Your task to perform on an android device: Search for sushi restaurants on Maps Image 0: 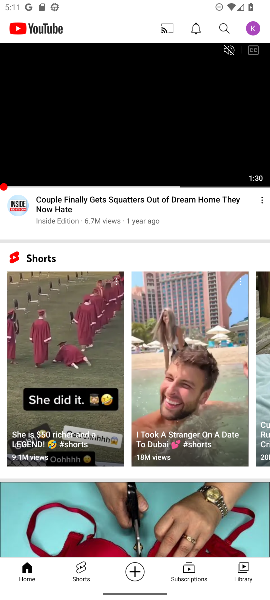
Step 0: press home button
Your task to perform on an android device: Search for sushi restaurants on Maps Image 1: 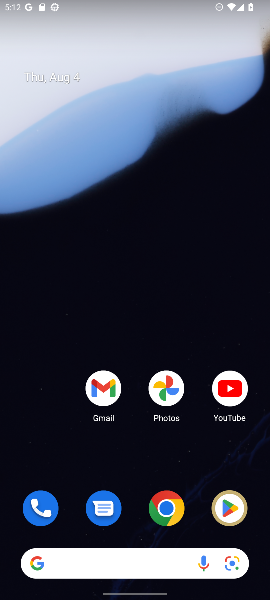
Step 1: drag from (110, 521) to (130, 137)
Your task to perform on an android device: Search for sushi restaurants on Maps Image 2: 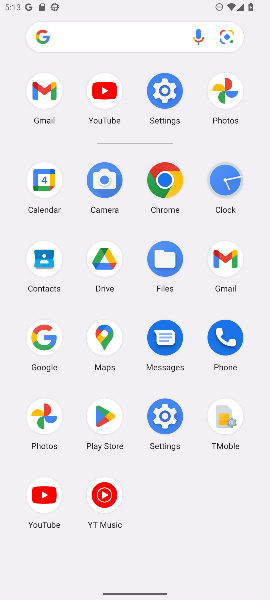
Step 2: drag from (196, 491) to (187, 254)
Your task to perform on an android device: Search for sushi restaurants on Maps Image 3: 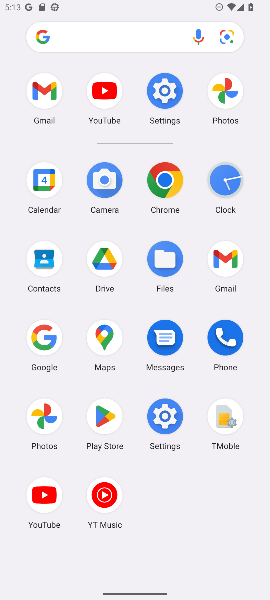
Step 3: click (109, 336)
Your task to perform on an android device: Search for sushi restaurants on Maps Image 4: 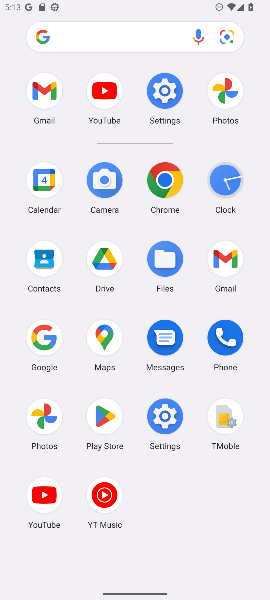
Step 4: click (109, 336)
Your task to perform on an android device: Search for sushi restaurants on Maps Image 5: 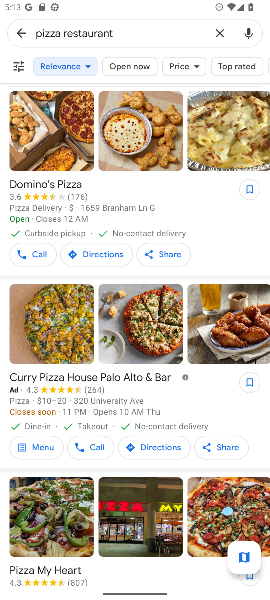
Step 5: click (213, 31)
Your task to perform on an android device: Search for sushi restaurants on Maps Image 6: 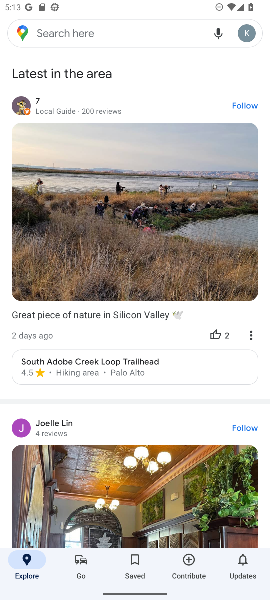
Step 6: drag from (39, 256) to (264, 56)
Your task to perform on an android device: Search for sushi restaurants on Maps Image 7: 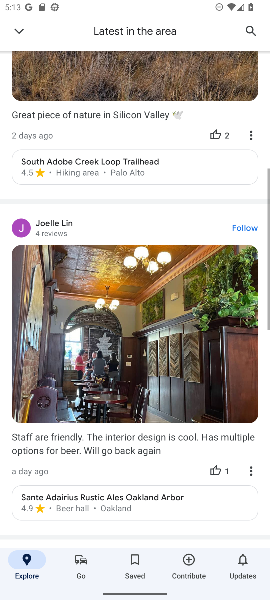
Step 7: drag from (135, 313) to (111, 9)
Your task to perform on an android device: Search for sushi restaurants on Maps Image 8: 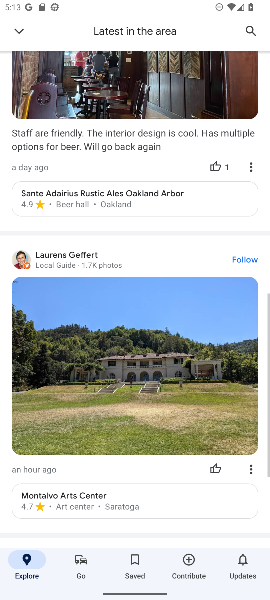
Step 8: drag from (127, 103) to (242, 175)
Your task to perform on an android device: Search for sushi restaurants on Maps Image 9: 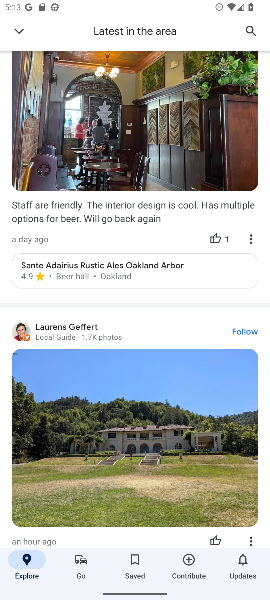
Step 9: click (13, 28)
Your task to perform on an android device: Search for sushi restaurants on Maps Image 10: 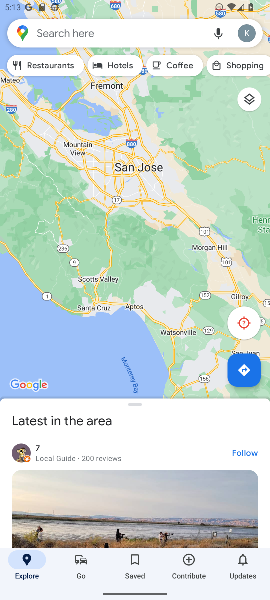
Step 10: click (102, 37)
Your task to perform on an android device: Search for sushi restaurants on Maps Image 11: 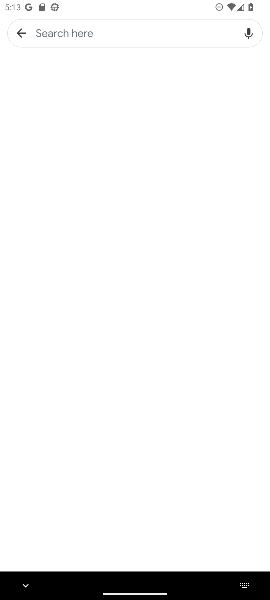
Step 11: click (76, 30)
Your task to perform on an android device: Search for sushi restaurants on Maps Image 12: 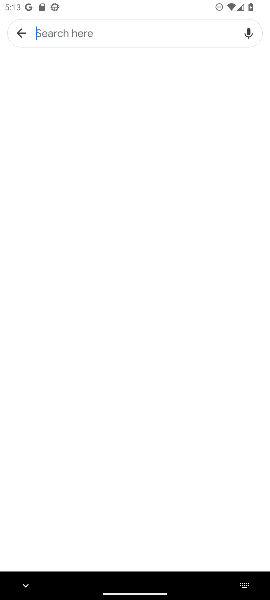
Step 12: click (77, 32)
Your task to perform on an android device: Search for sushi restaurants on Maps Image 13: 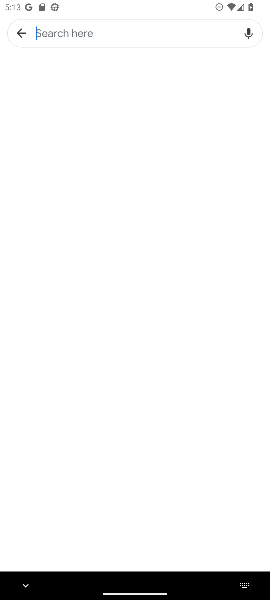
Step 13: drag from (143, 597) to (192, 382)
Your task to perform on an android device: Search for sushi restaurants on Maps Image 14: 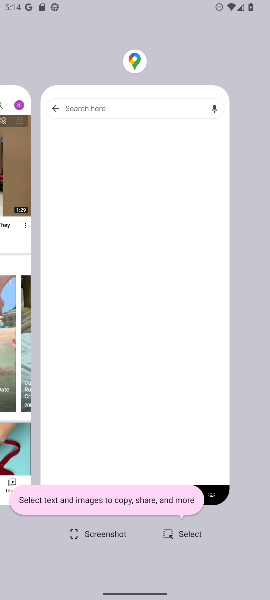
Step 14: click (184, 235)
Your task to perform on an android device: Search for sushi restaurants on Maps Image 15: 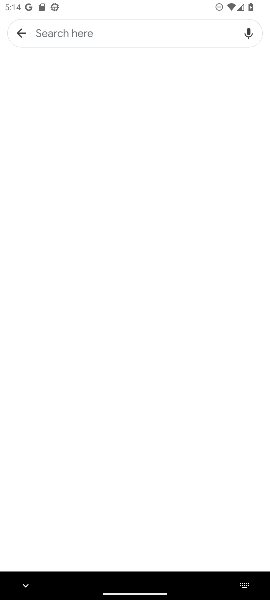
Step 15: click (60, 30)
Your task to perform on an android device: Search for sushi restaurants on Maps Image 16: 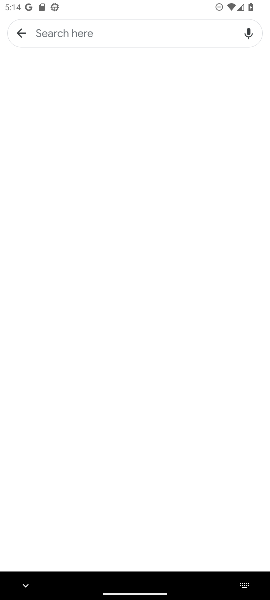
Step 16: type "sushi restaurants"
Your task to perform on an android device: Search for sushi restaurants on Maps Image 17: 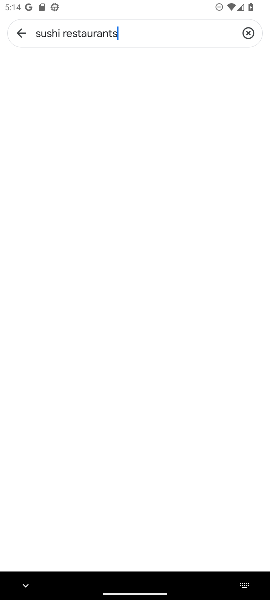
Step 17: type ""
Your task to perform on an android device: Search for sushi restaurants on Maps Image 18: 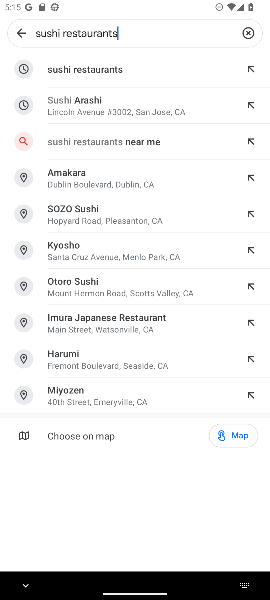
Step 18: click (97, 57)
Your task to perform on an android device: Search for sushi restaurants on Maps Image 19: 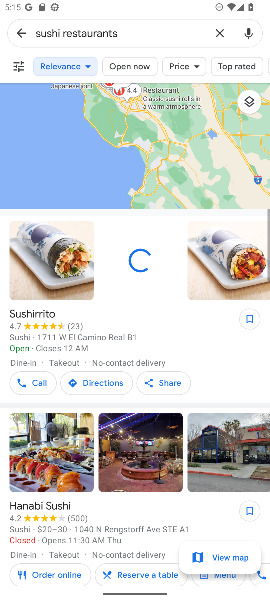
Step 19: task complete